Your task to perform on an android device: see tabs open on other devices in the chrome app Image 0: 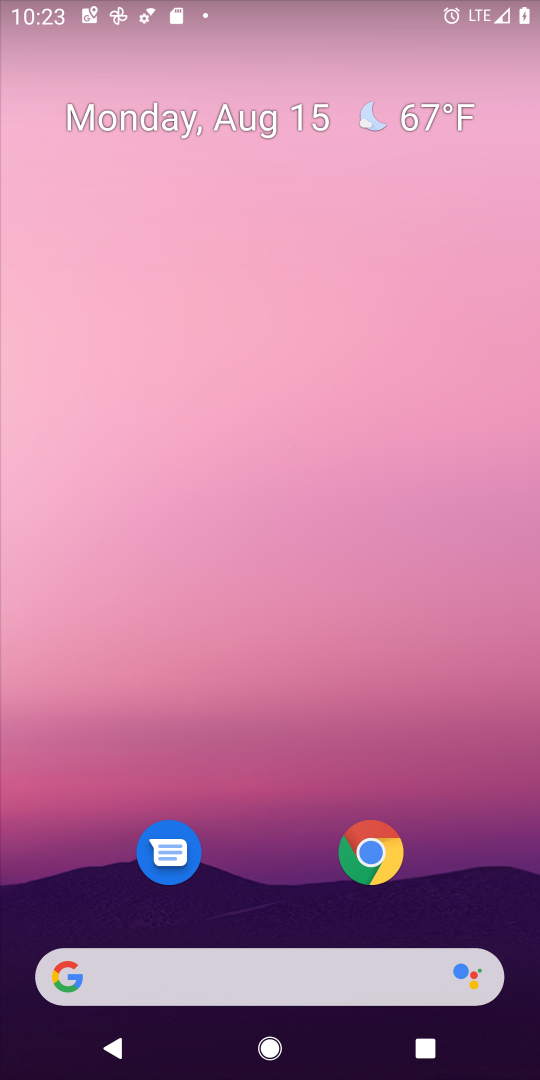
Step 0: click (368, 855)
Your task to perform on an android device: see tabs open on other devices in the chrome app Image 1: 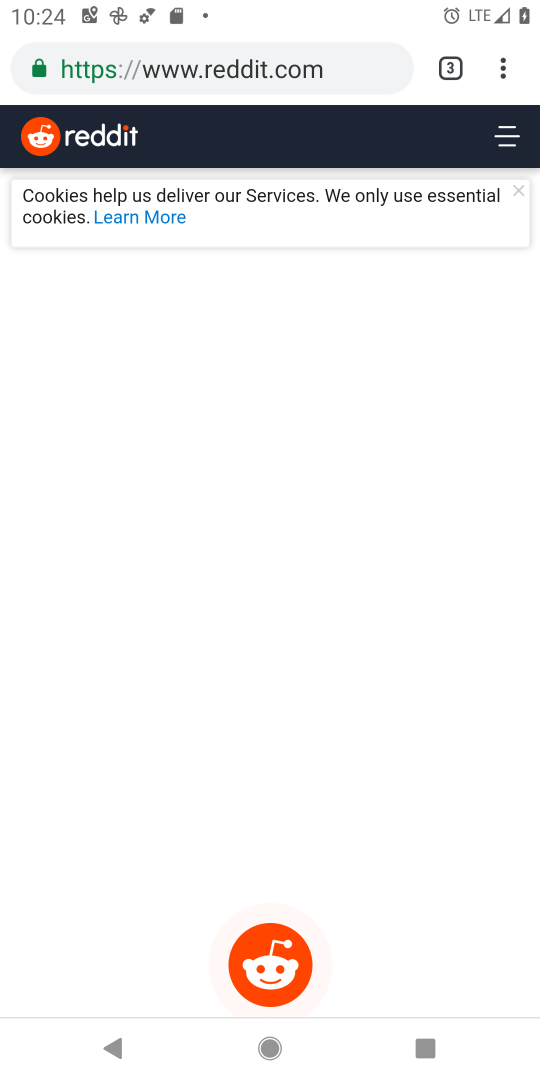
Step 1: click (509, 71)
Your task to perform on an android device: see tabs open on other devices in the chrome app Image 2: 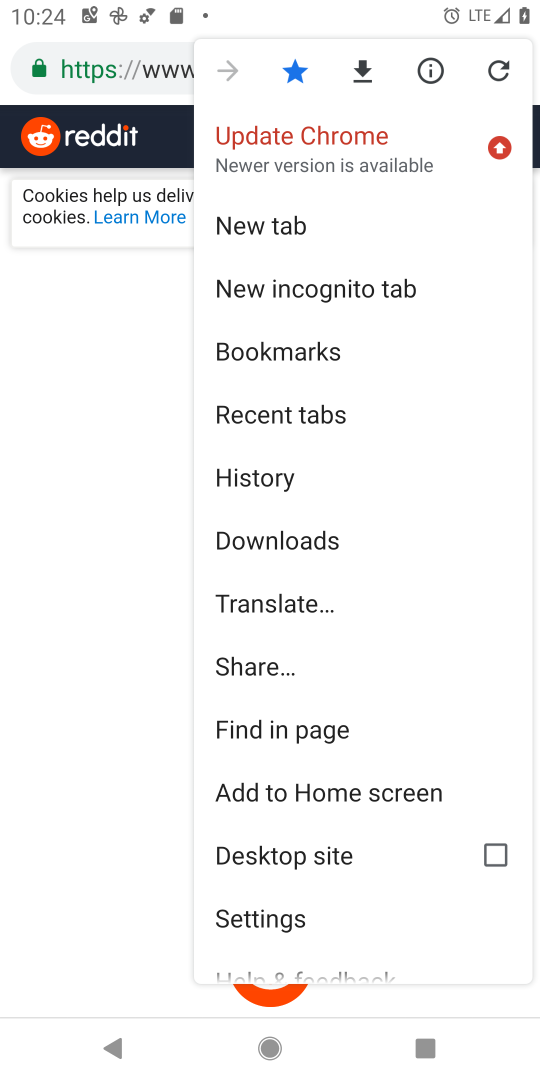
Step 2: click (306, 423)
Your task to perform on an android device: see tabs open on other devices in the chrome app Image 3: 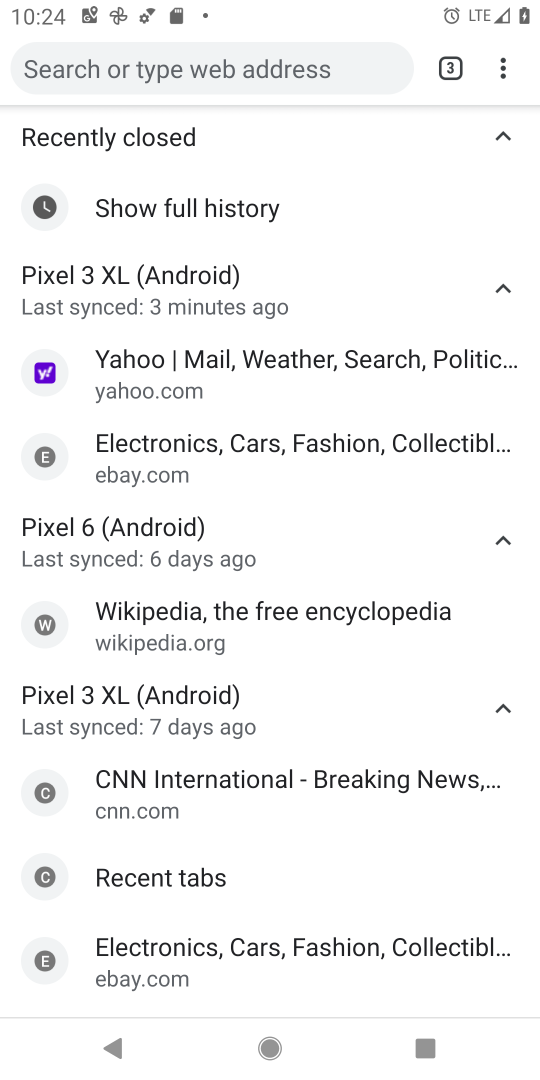
Step 3: task complete